Your task to perform on an android device: Go to Amazon Image 0: 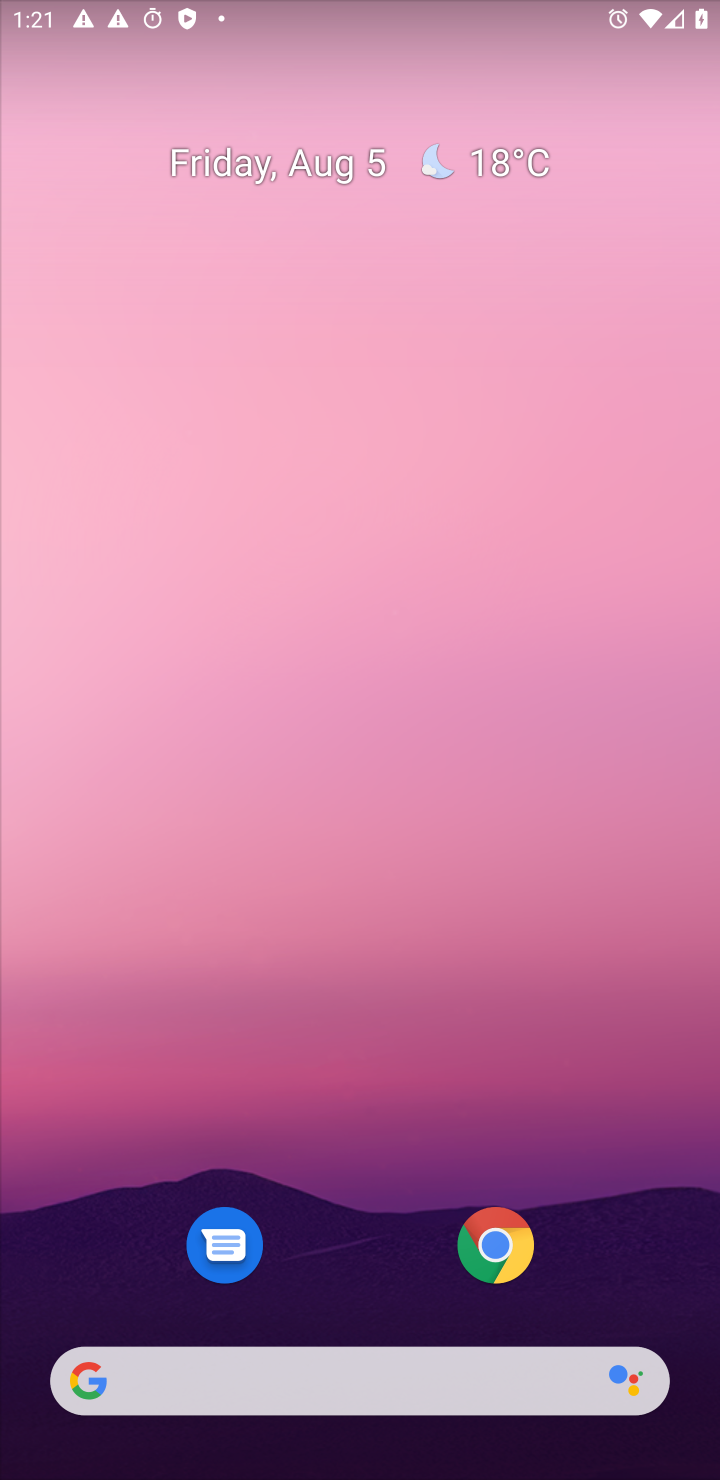
Step 0: click (91, 1385)
Your task to perform on an android device: Go to Amazon Image 1: 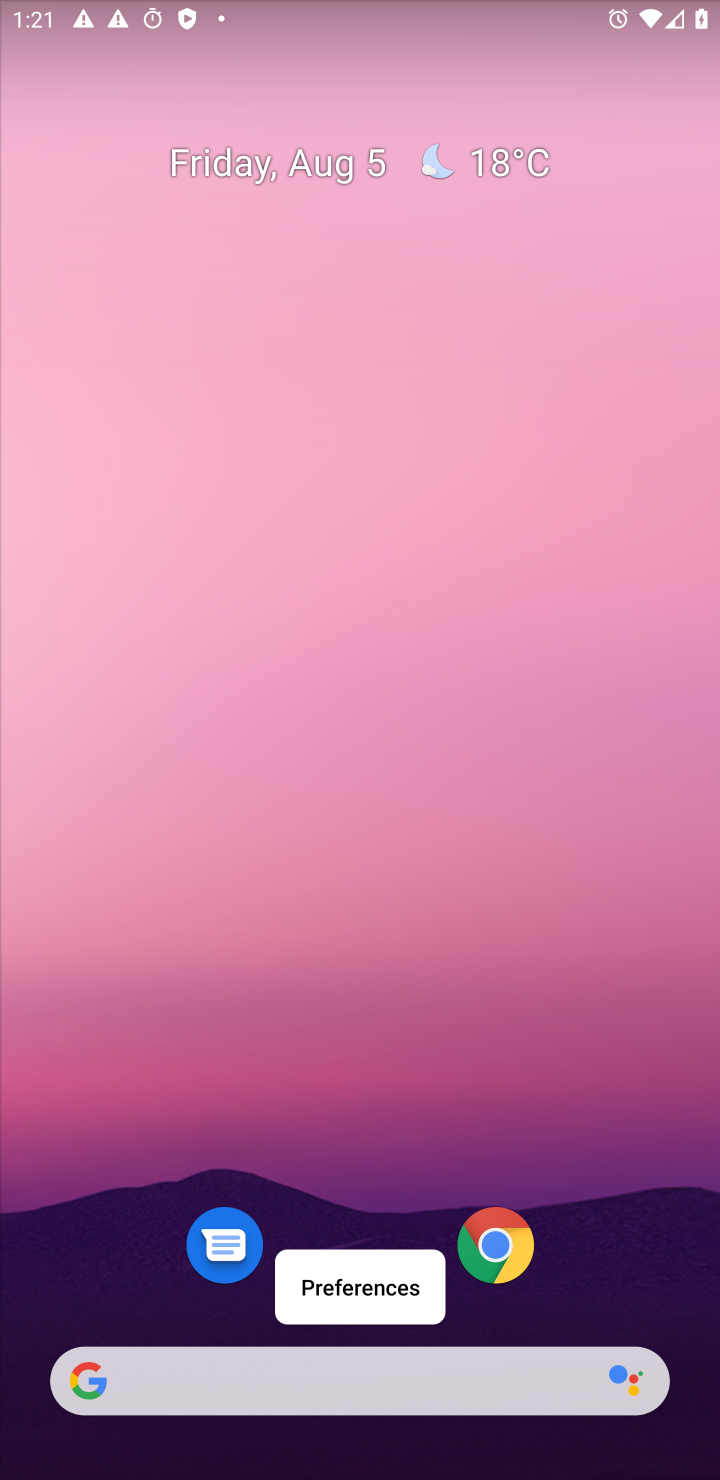
Step 1: click (98, 1391)
Your task to perform on an android device: Go to Amazon Image 2: 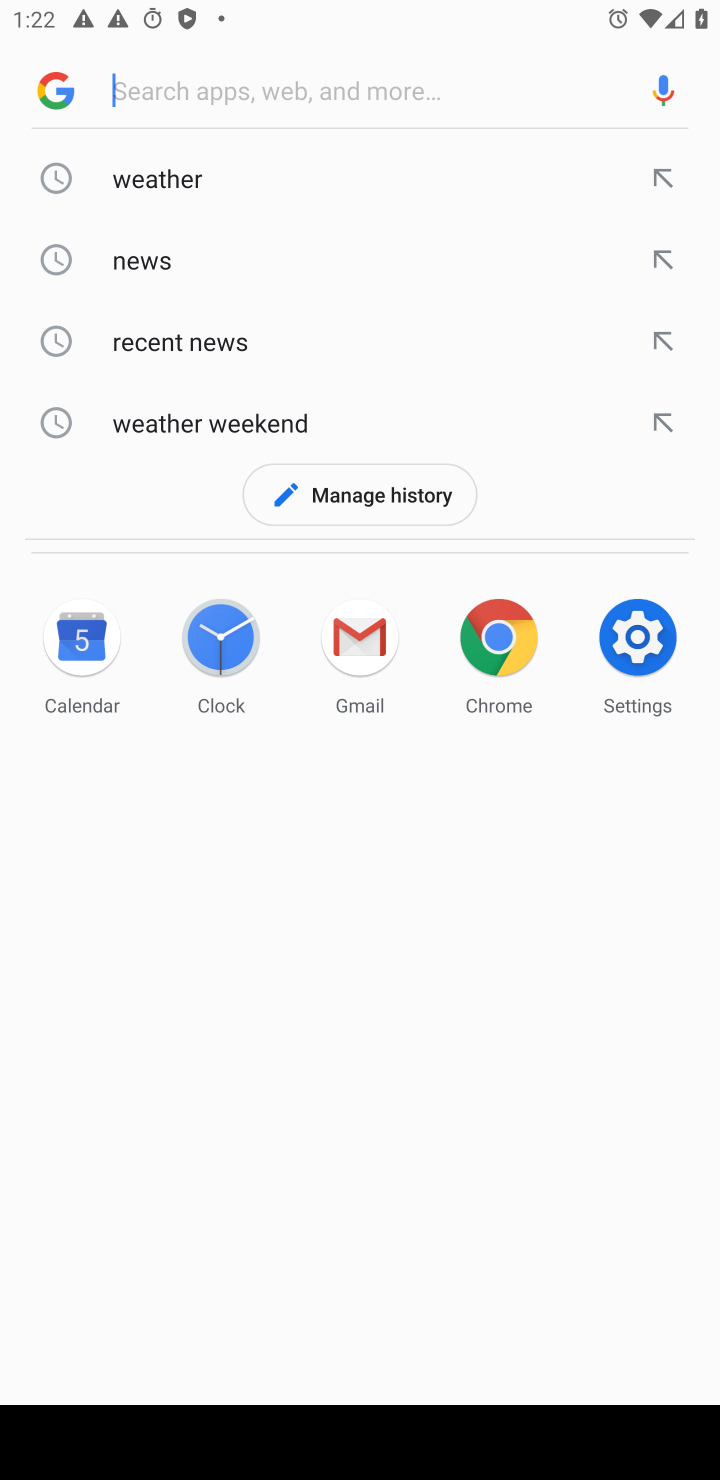
Step 2: press enter
Your task to perform on an android device: Go to Amazon Image 3: 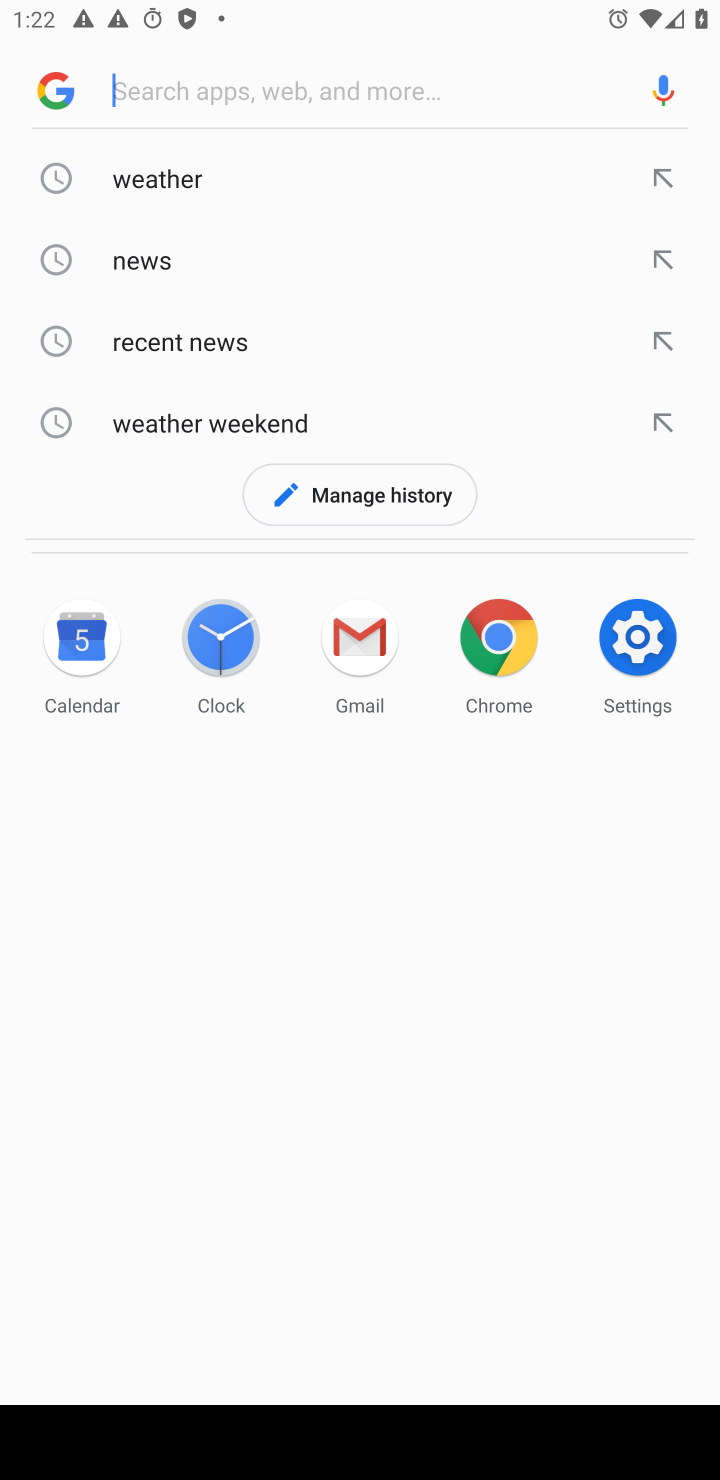
Step 3: type "Amazon"
Your task to perform on an android device: Go to Amazon Image 4: 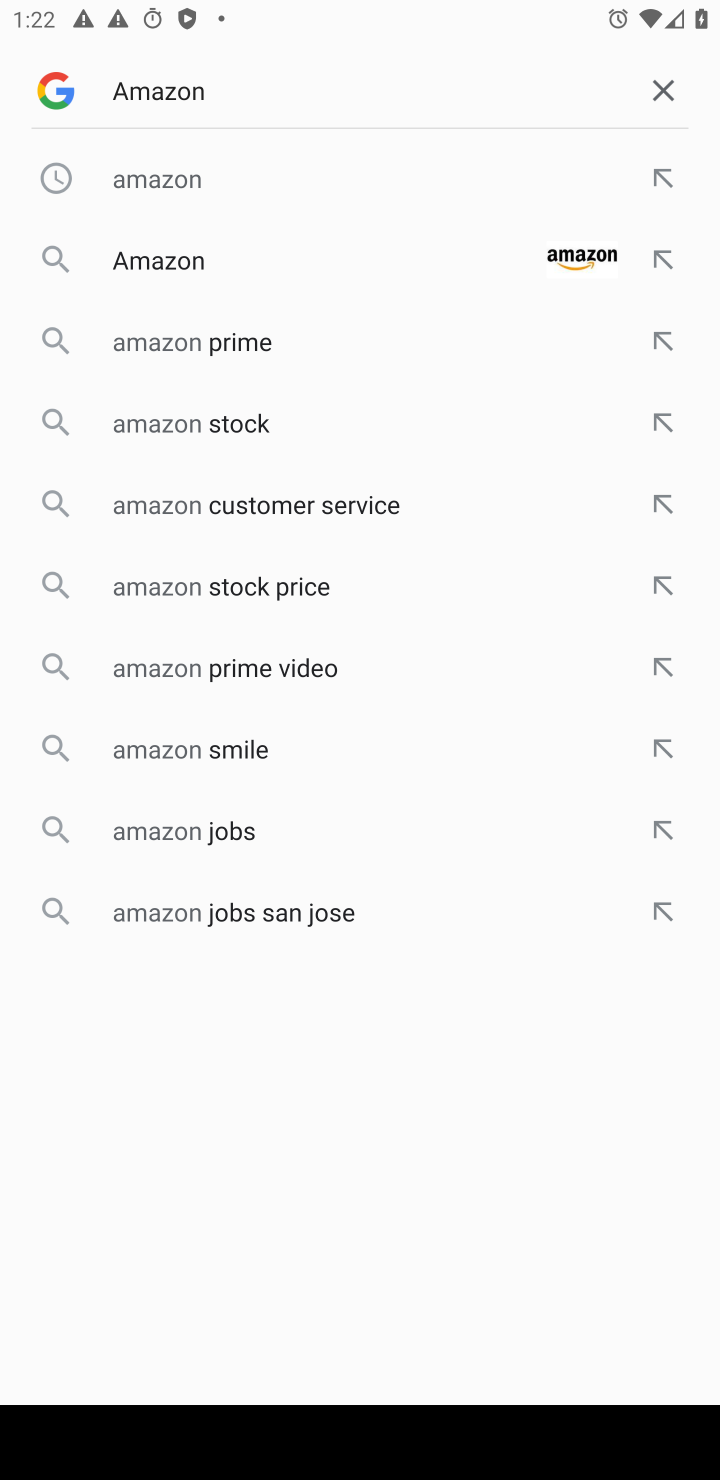
Step 4: click (131, 266)
Your task to perform on an android device: Go to Amazon Image 5: 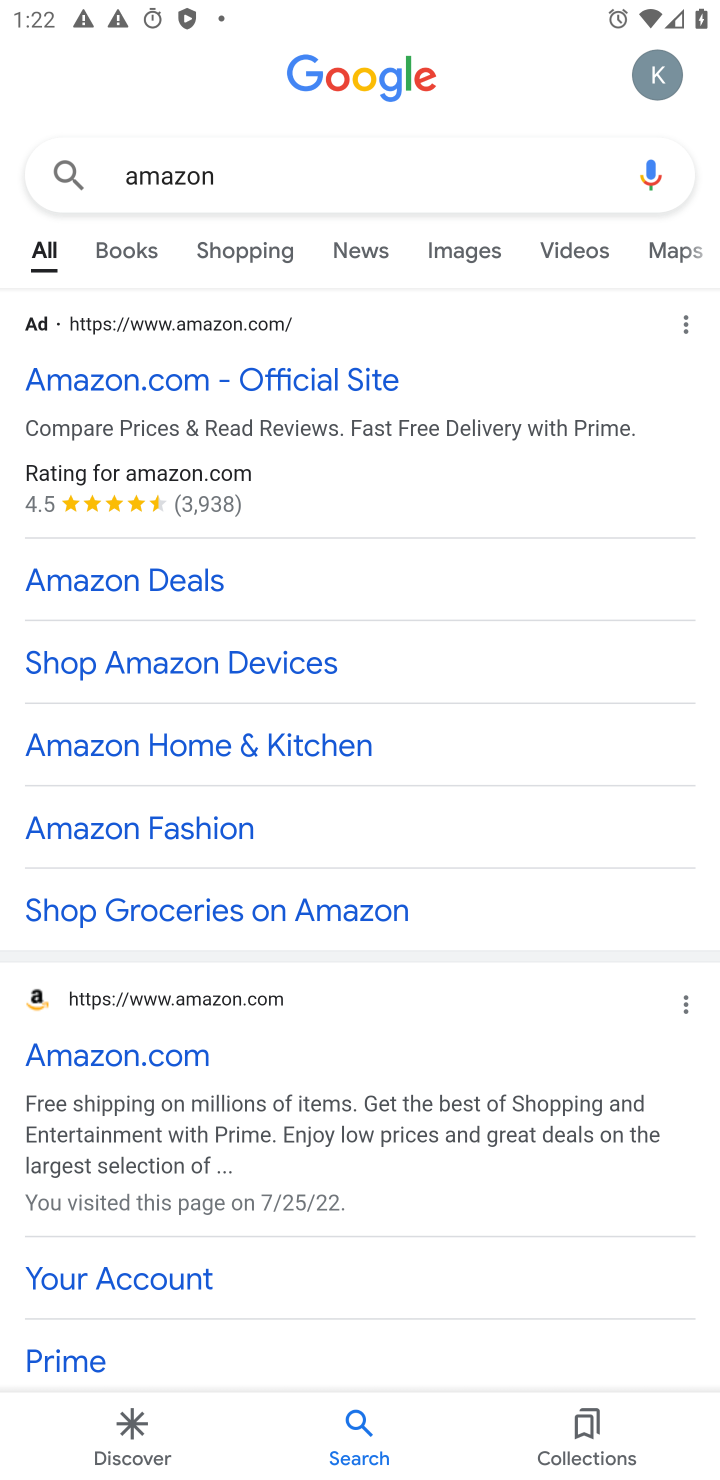
Step 5: click (81, 377)
Your task to perform on an android device: Go to Amazon Image 6: 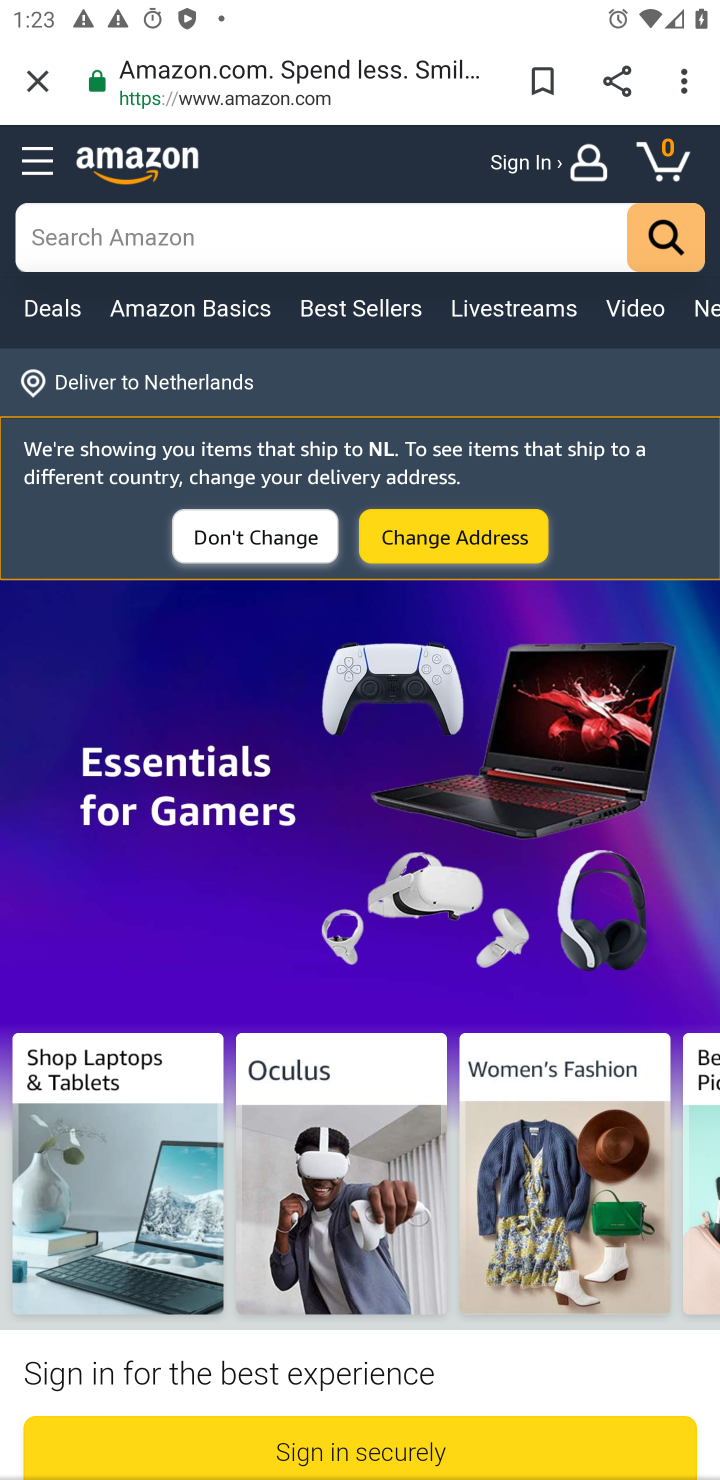
Step 6: task complete